Your task to perform on an android device: When is my next appointment? Image 0: 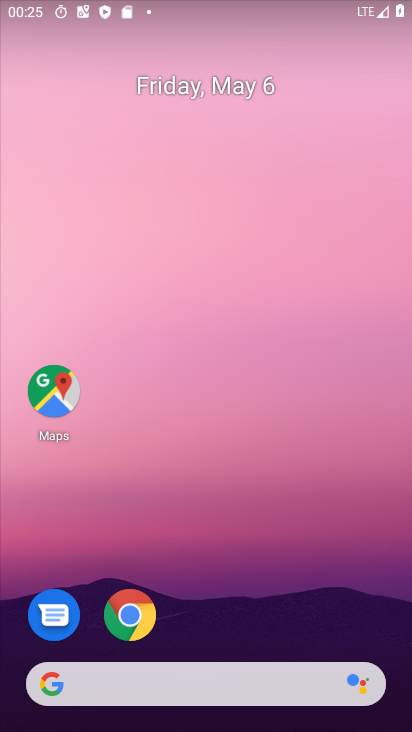
Step 0: drag from (242, 611) to (270, 89)
Your task to perform on an android device: When is my next appointment? Image 1: 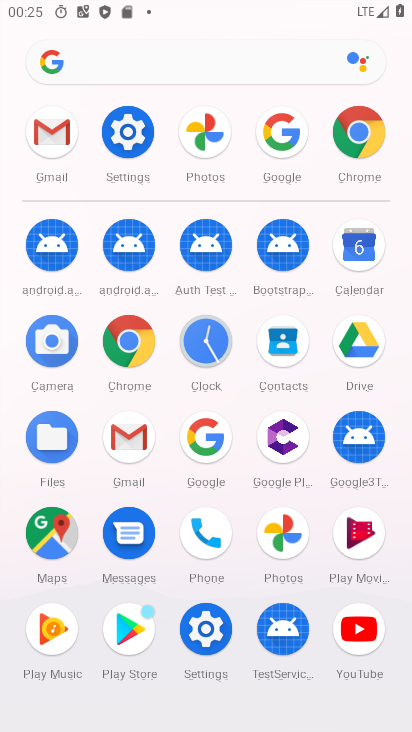
Step 1: click (366, 247)
Your task to perform on an android device: When is my next appointment? Image 2: 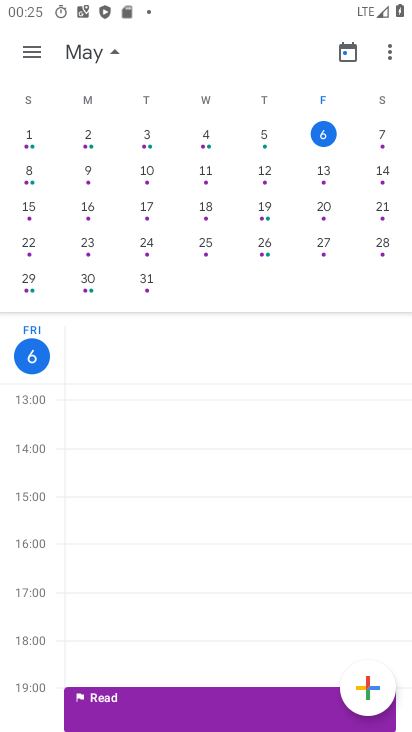
Step 2: click (146, 172)
Your task to perform on an android device: When is my next appointment? Image 3: 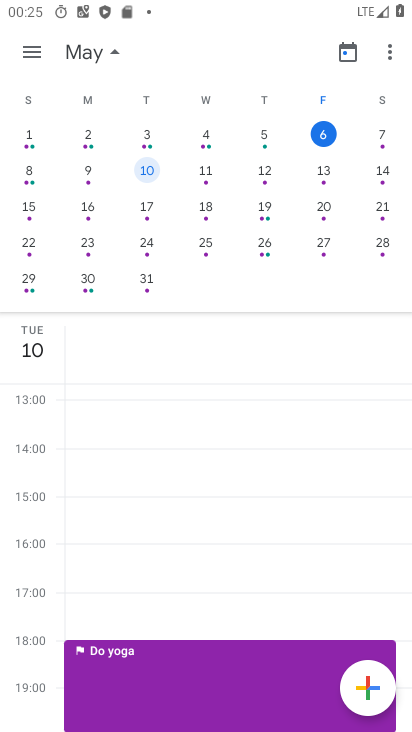
Step 3: task complete